Your task to perform on an android device: Go to wifi settings Image 0: 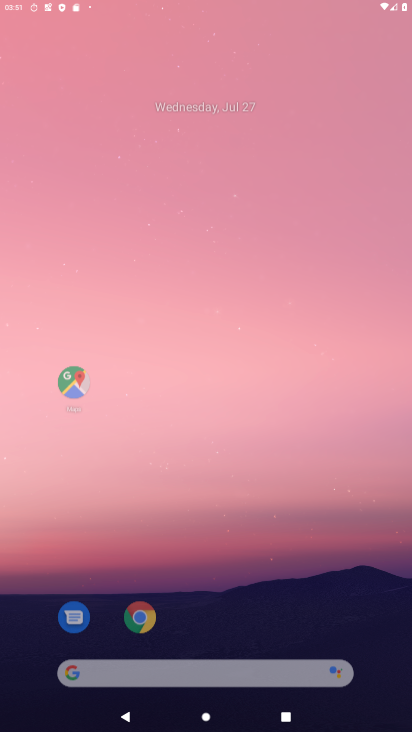
Step 0: click (281, 92)
Your task to perform on an android device: Go to wifi settings Image 1: 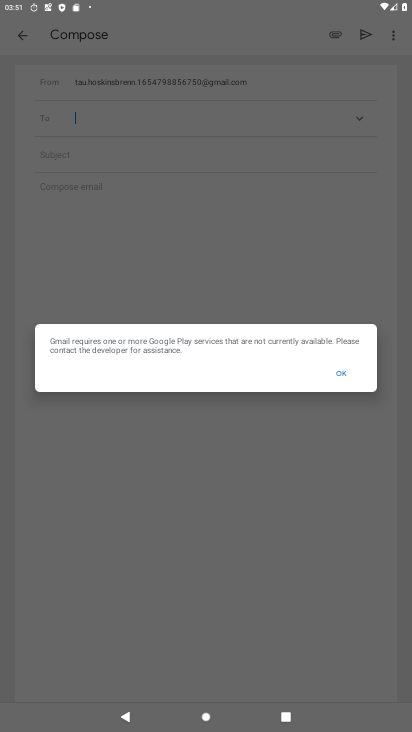
Step 1: press home button
Your task to perform on an android device: Go to wifi settings Image 2: 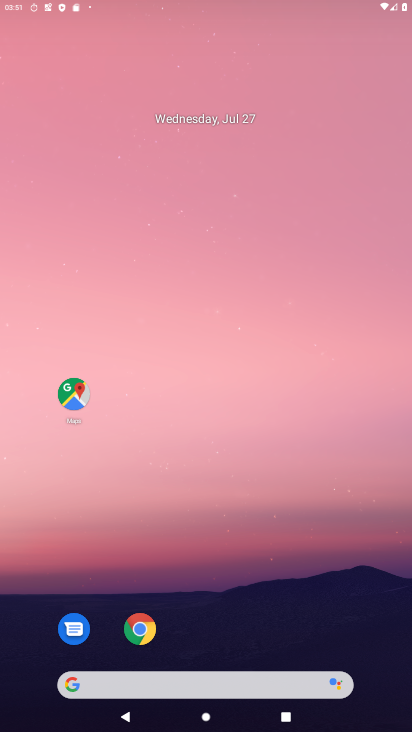
Step 2: drag from (315, 585) to (289, 68)
Your task to perform on an android device: Go to wifi settings Image 3: 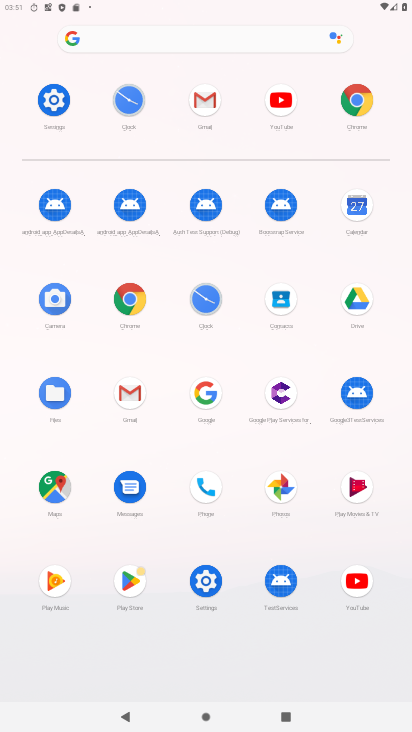
Step 3: click (46, 101)
Your task to perform on an android device: Go to wifi settings Image 4: 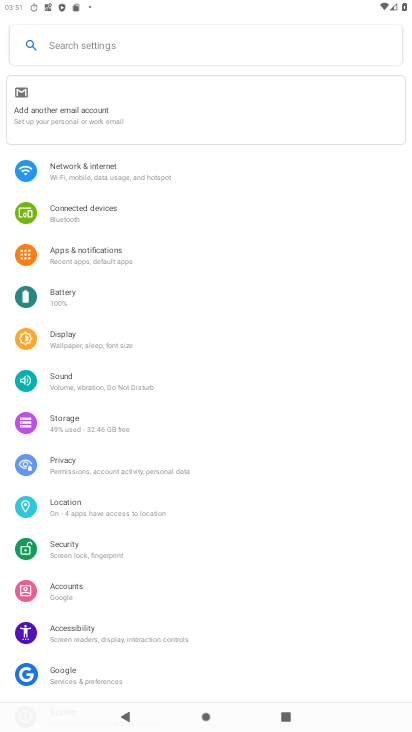
Step 4: click (133, 172)
Your task to perform on an android device: Go to wifi settings Image 5: 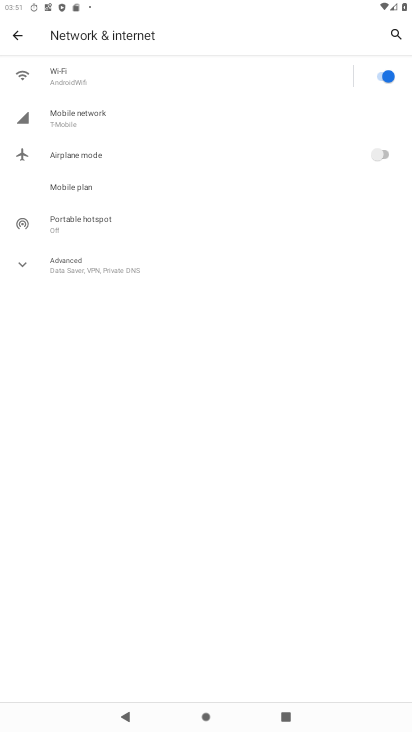
Step 5: click (193, 75)
Your task to perform on an android device: Go to wifi settings Image 6: 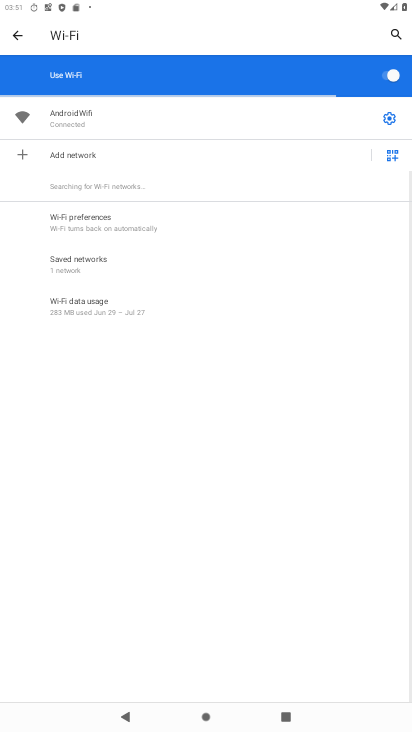
Step 6: click (388, 123)
Your task to perform on an android device: Go to wifi settings Image 7: 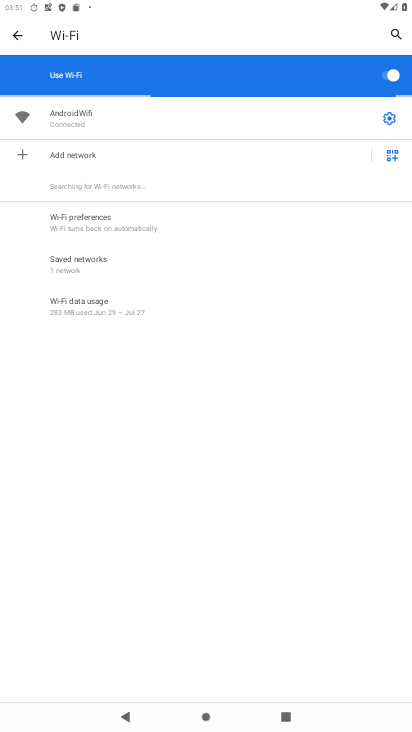
Step 7: click (390, 115)
Your task to perform on an android device: Go to wifi settings Image 8: 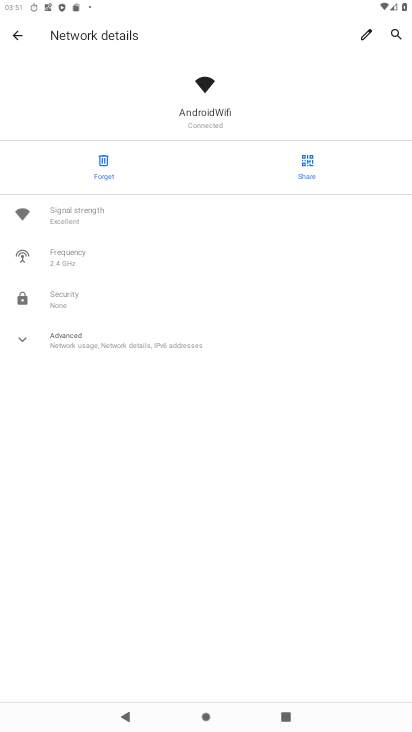
Step 8: task complete